Your task to perform on an android device: Search for floor lamps on article.com Image 0: 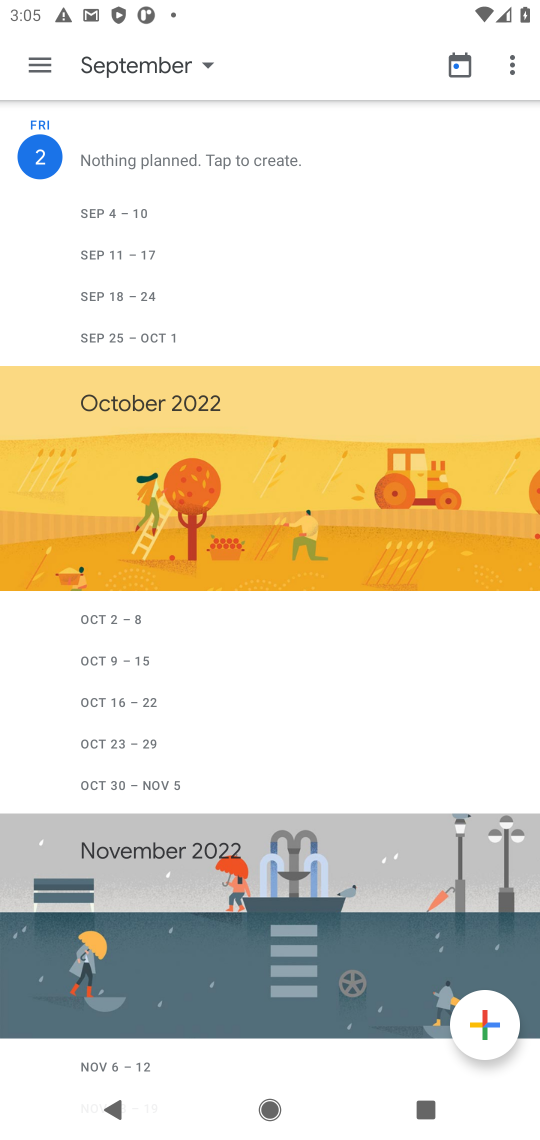
Step 0: press home button
Your task to perform on an android device: Search for floor lamps on article.com Image 1: 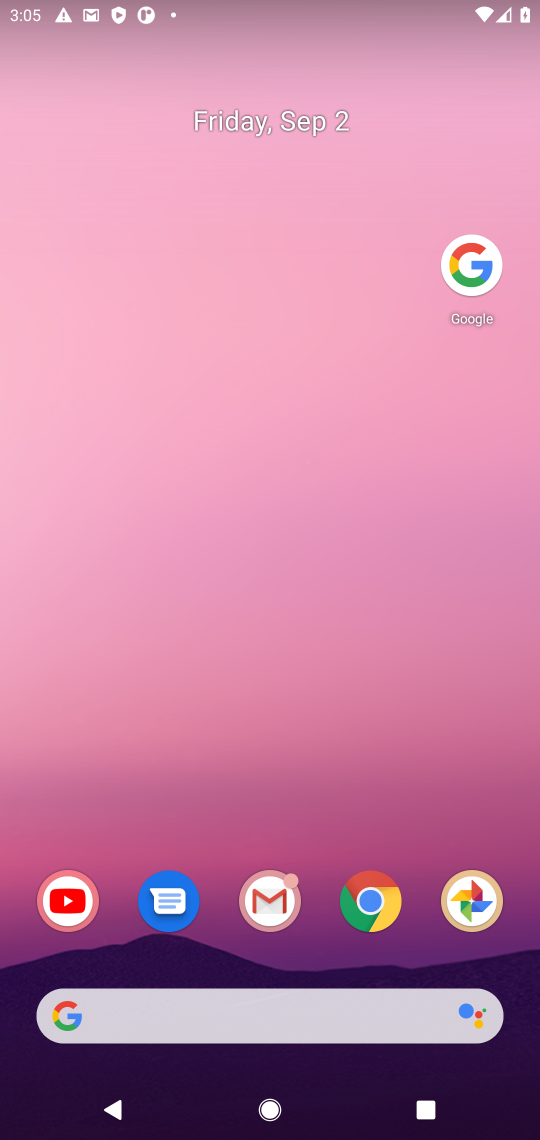
Step 1: drag from (200, 1032) to (347, 309)
Your task to perform on an android device: Search for floor lamps on article.com Image 2: 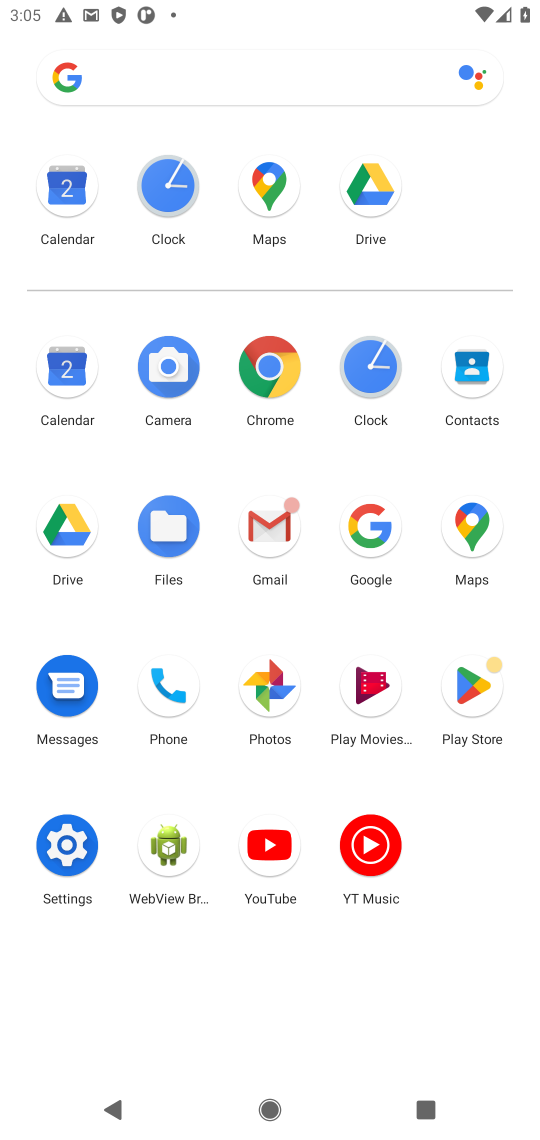
Step 2: click (367, 523)
Your task to perform on an android device: Search for floor lamps on article.com Image 3: 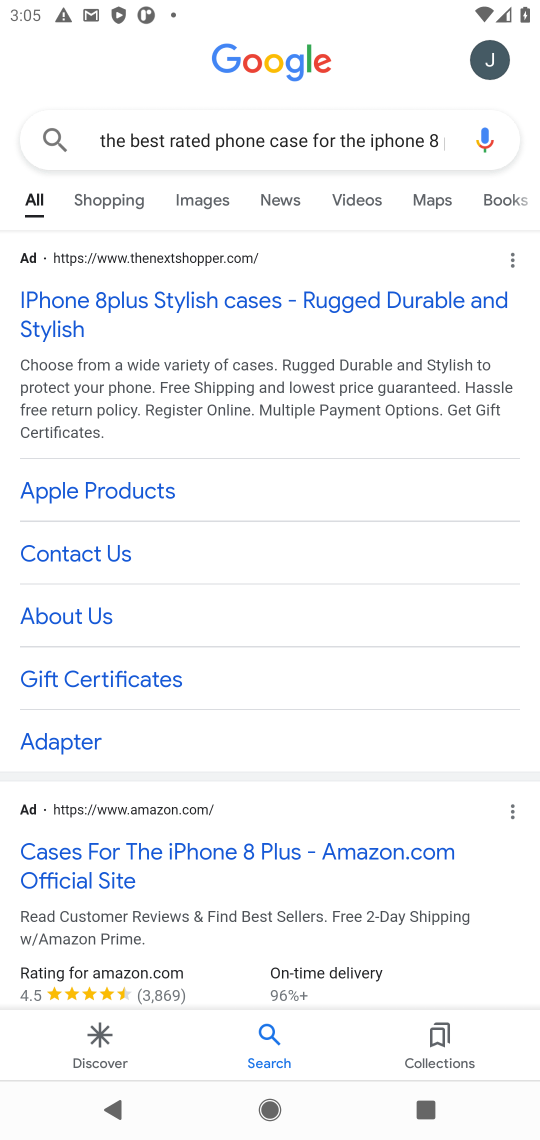
Step 3: click (348, 127)
Your task to perform on an android device: Search for floor lamps on article.com Image 4: 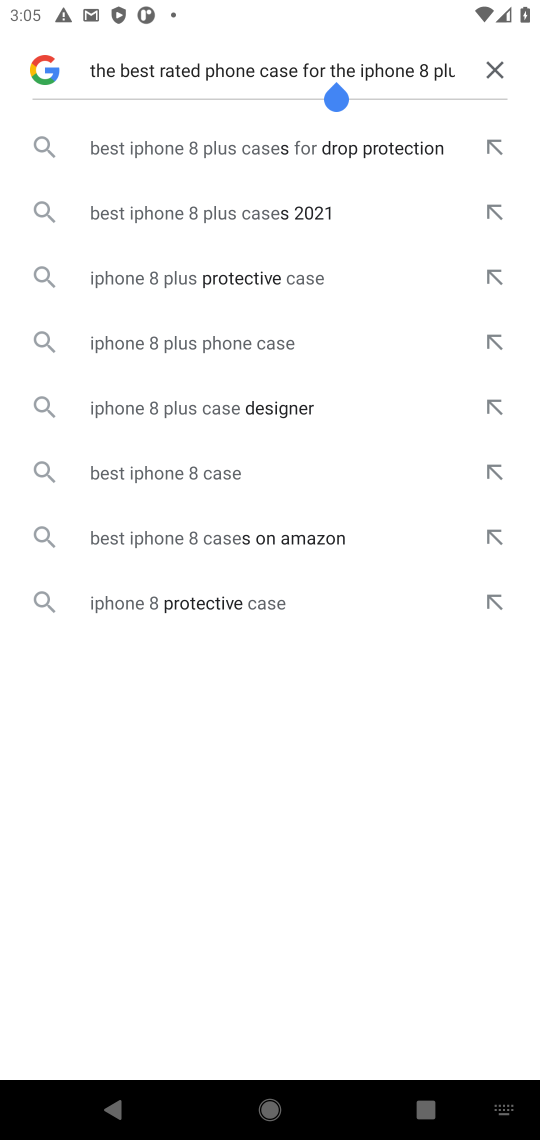
Step 4: click (488, 50)
Your task to perform on an android device: Search for floor lamps on article.com Image 5: 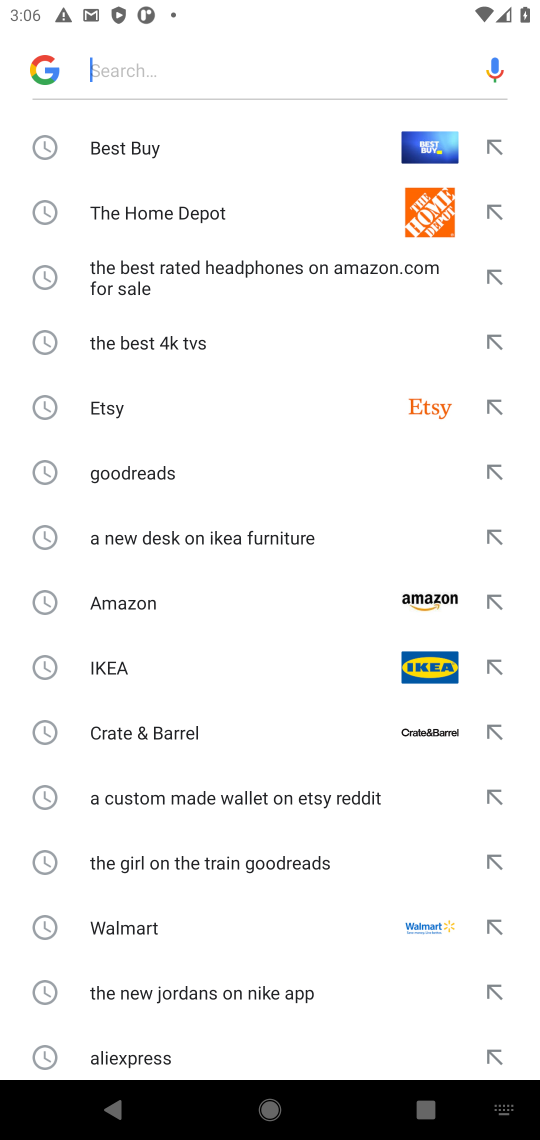
Step 5: click (378, 58)
Your task to perform on an android device: Search for floor lamps on article.com Image 6: 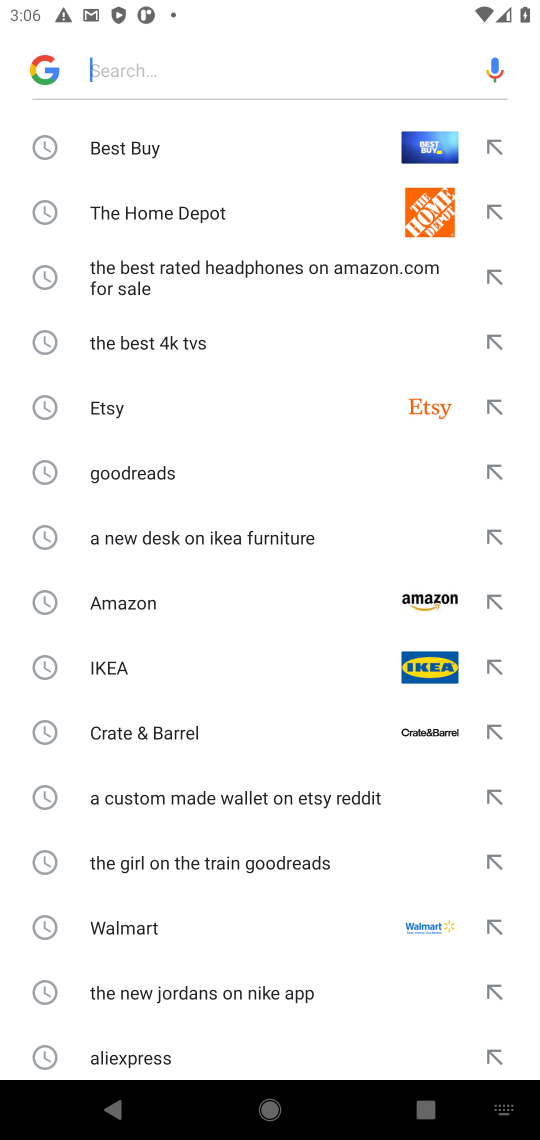
Step 6: type "floor lamps on article.com "
Your task to perform on an android device: Search for floor lamps on article.com Image 7: 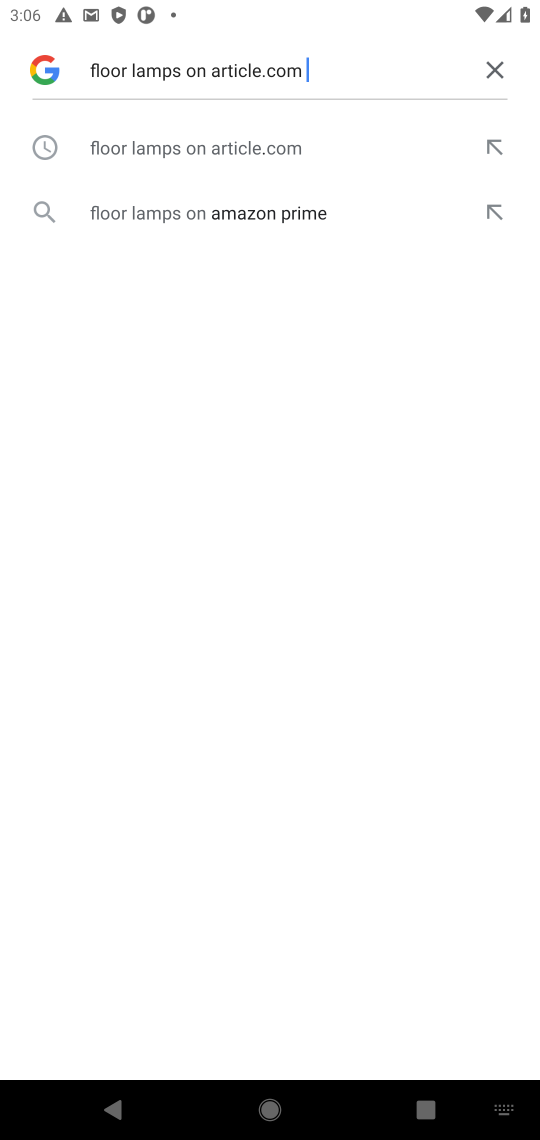
Step 7: click (273, 151)
Your task to perform on an android device: Search for floor lamps on article.com Image 8: 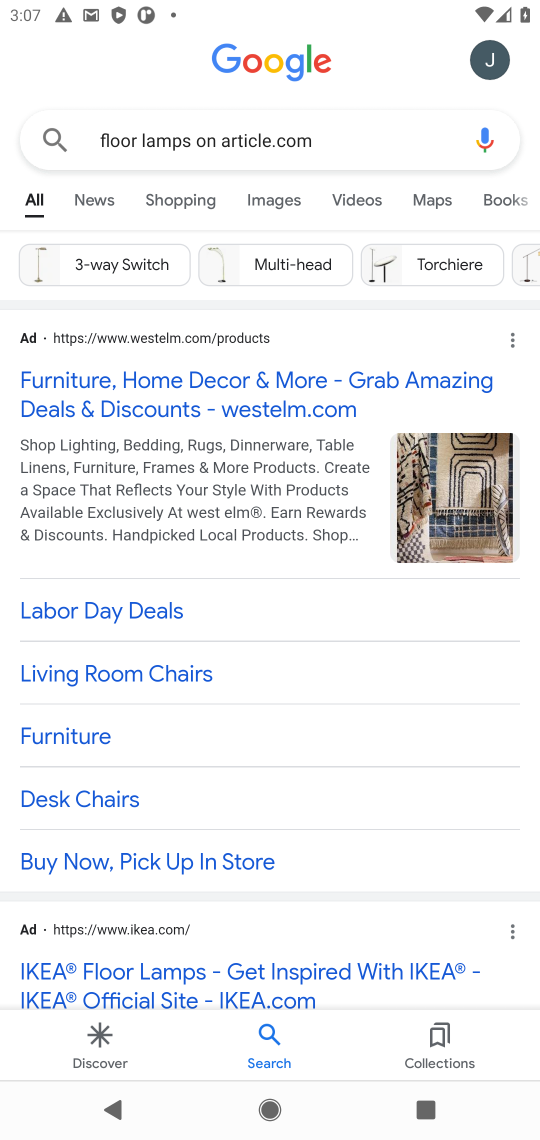
Step 8: task complete